Your task to perform on an android device: Add rayovac triple a to the cart on newegg.com, then select checkout. Image 0: 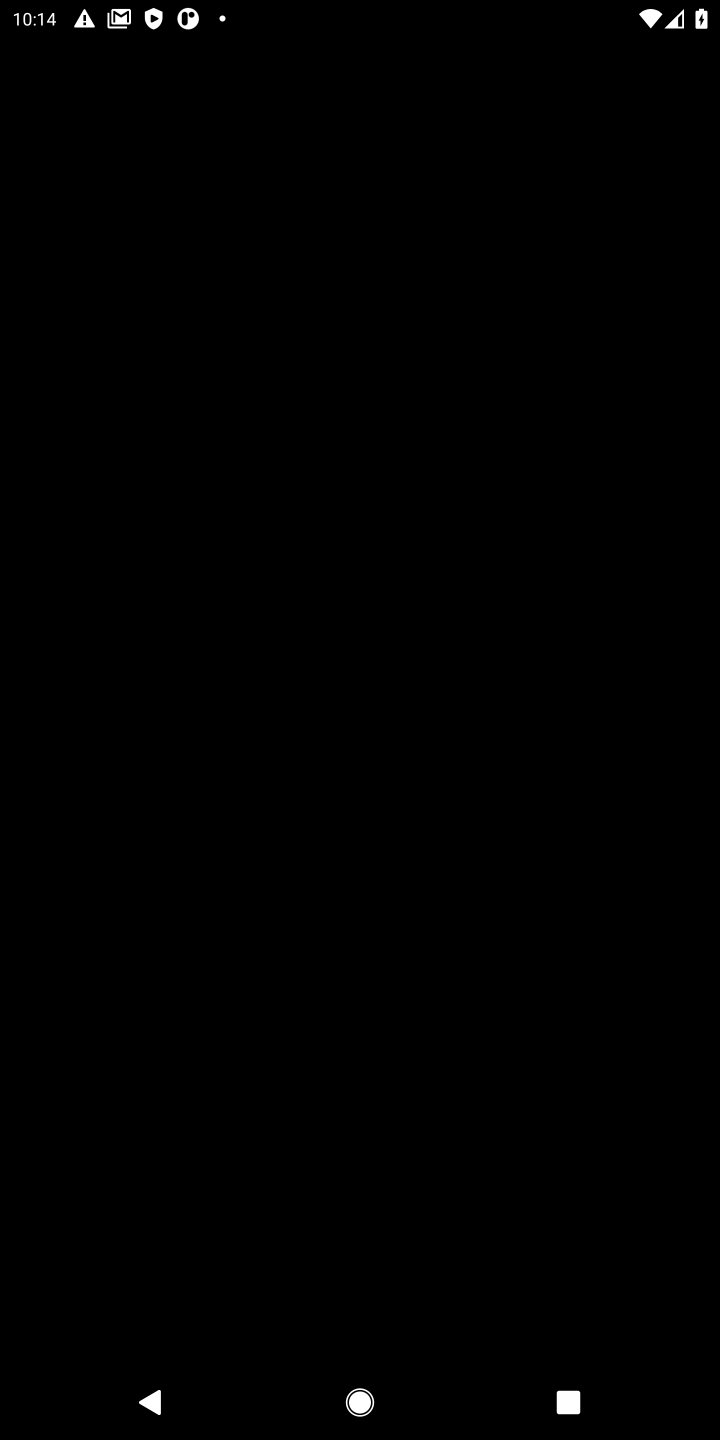
Step 0: press home button
Your task to perform on an android device: Add rayovac triple a to the cart on newegg.com, then select checkout. Image 1: 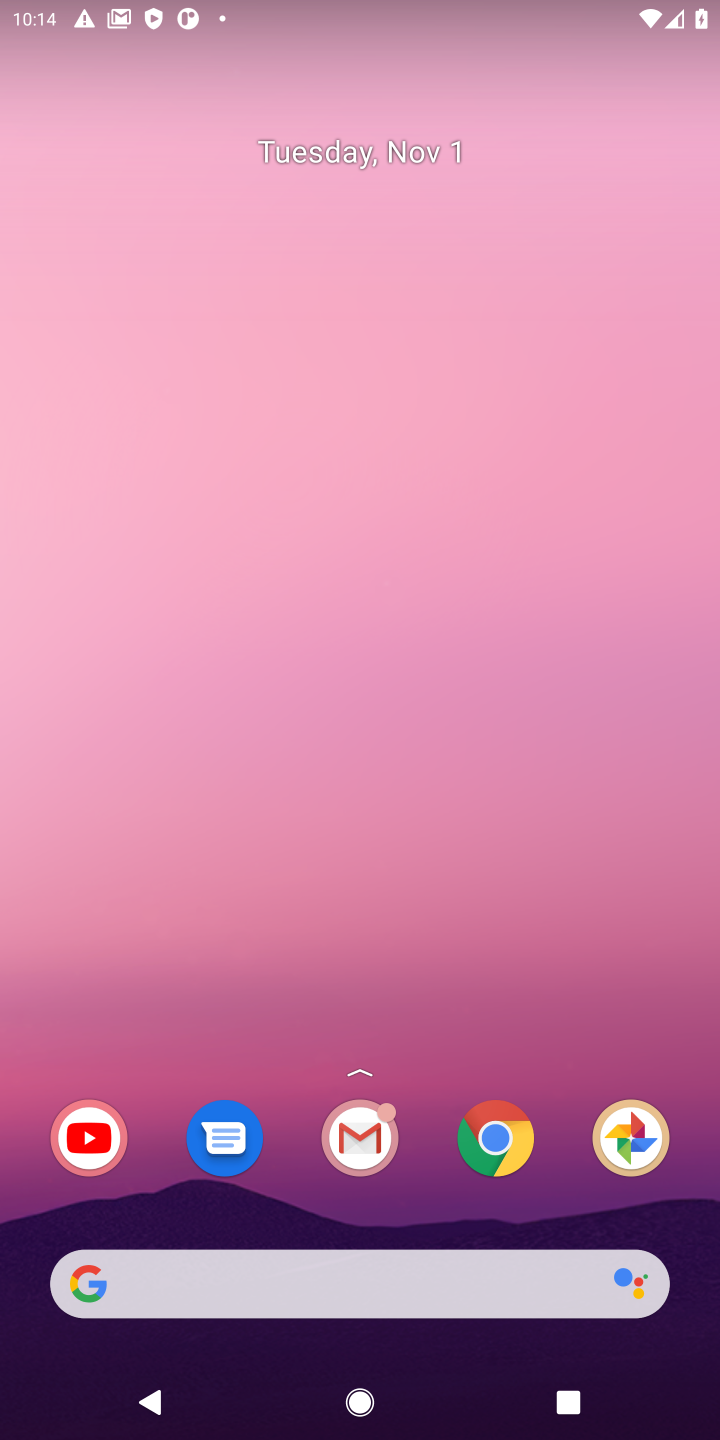
Step 1: click (512, 1135)
Your task to perform on an android device: Add rayovac triple a to the cart on newegg.com, then select checkout. Image 2: 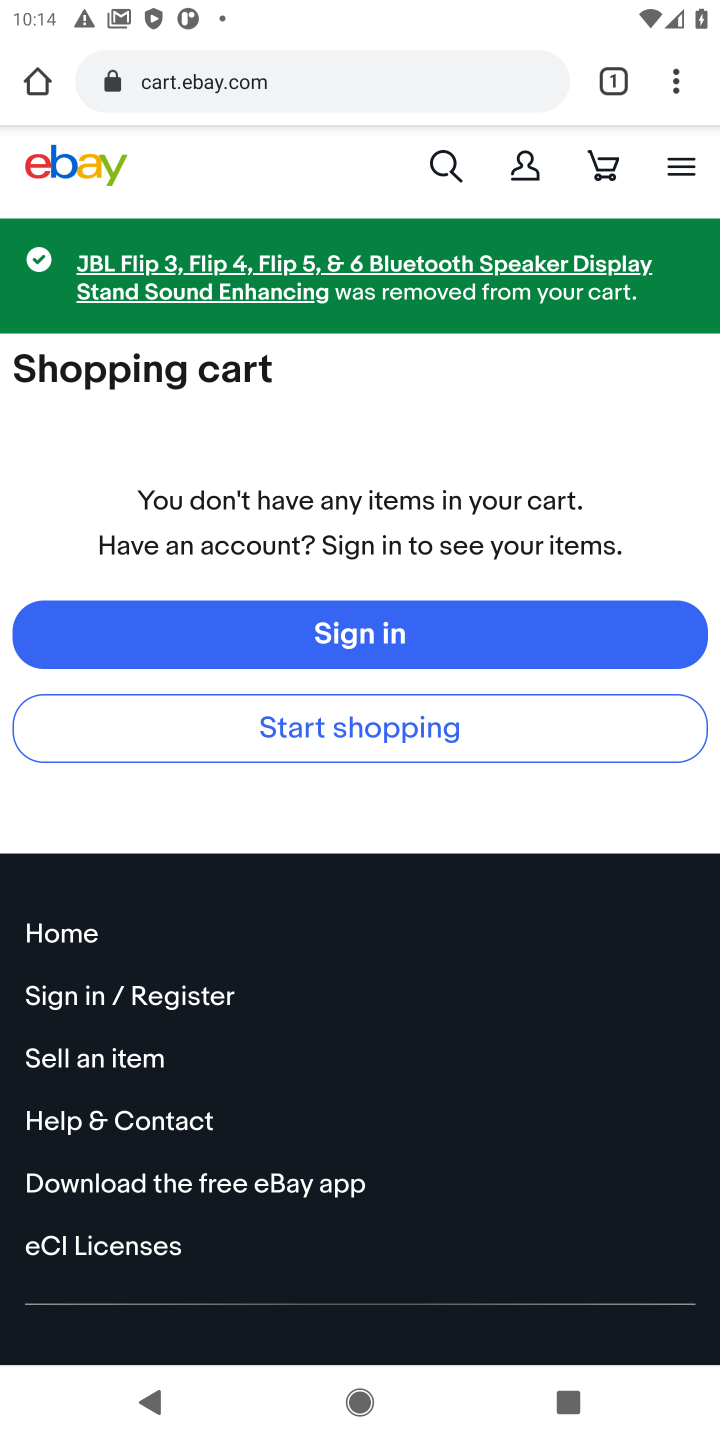
Step 2: click (202, 78)
Your task to perform on an android device: Add rayovac triple a to the cart on newegg.com, then select checkout. Image 3: 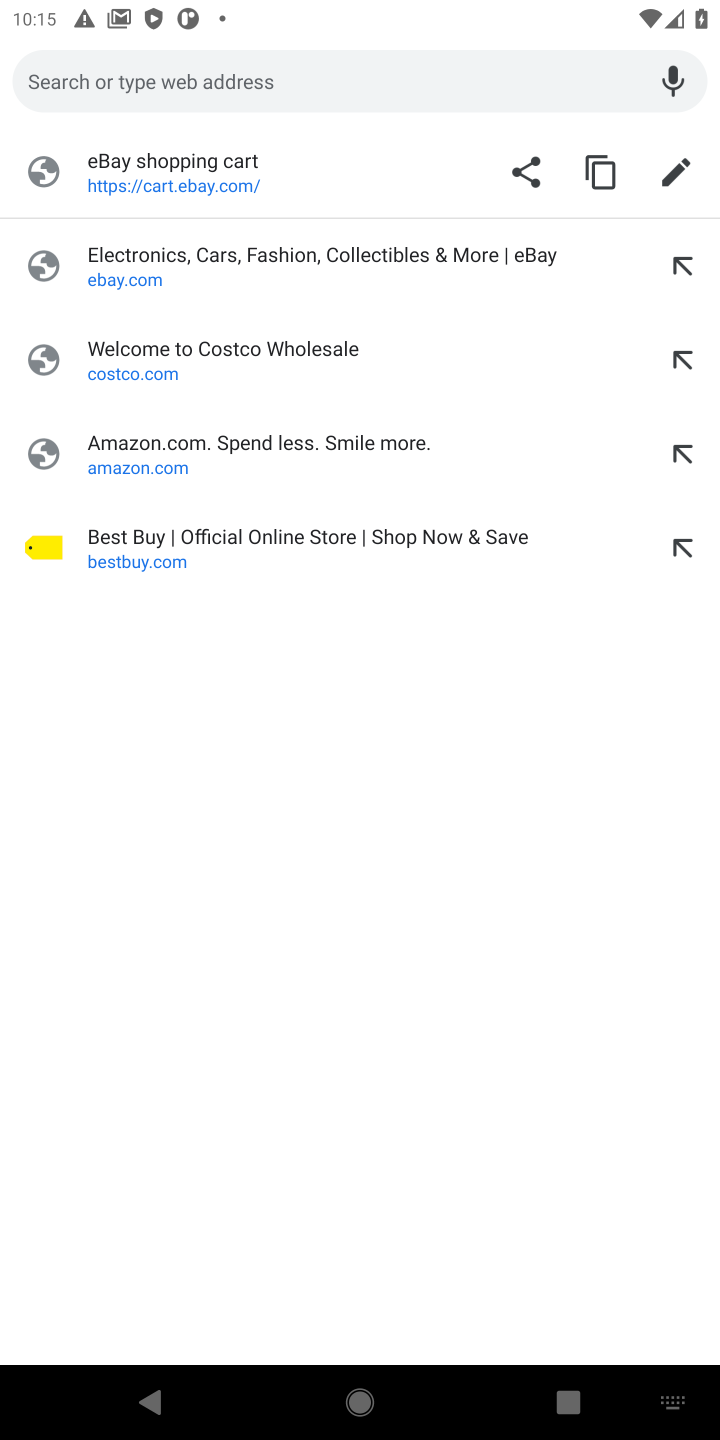
Step 3: type "newegg.com"
Your task to perform on an android device: Add rayovac triple a to the cart on newegg.com, then select checkout. Image 4: 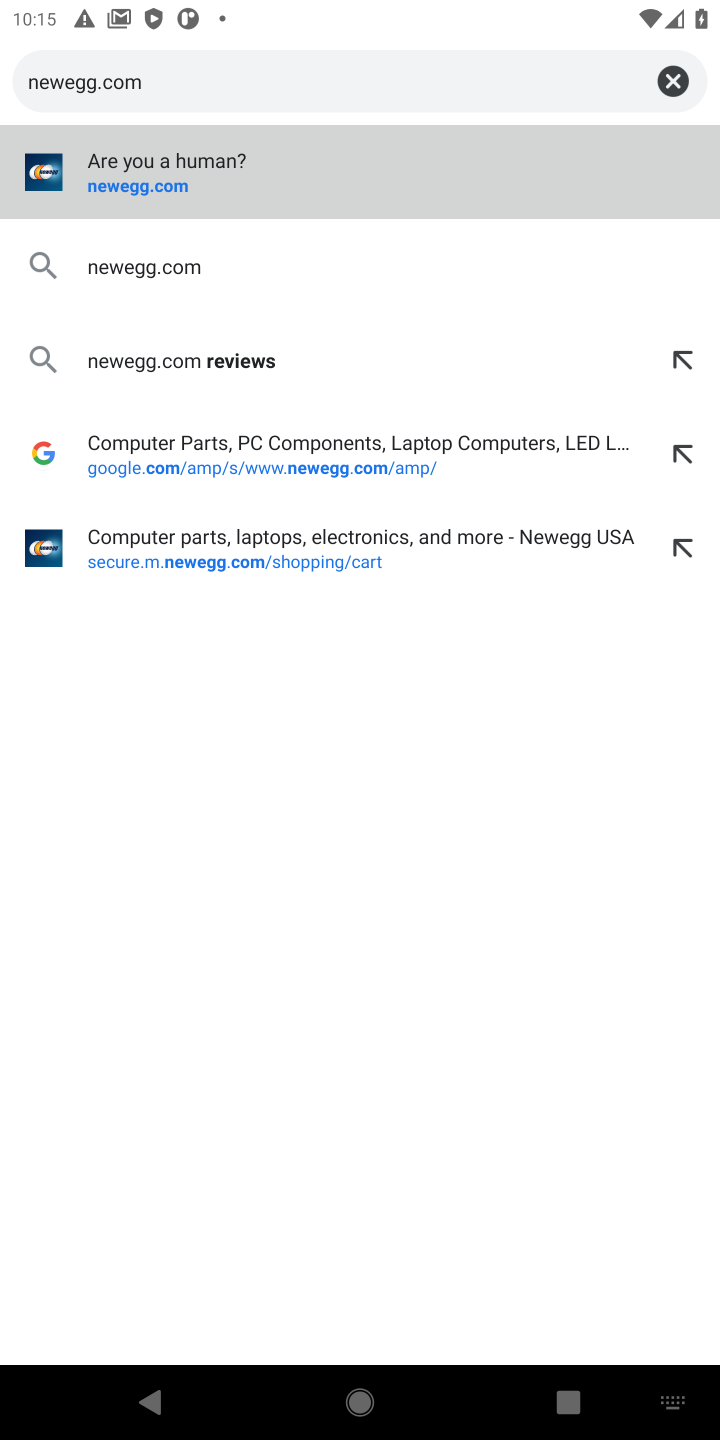
Step 4: click (129, 277)
Your task to perform on an android device: Add rayovac triple a to the cart on newegg.com, then select checkout. Image 5: 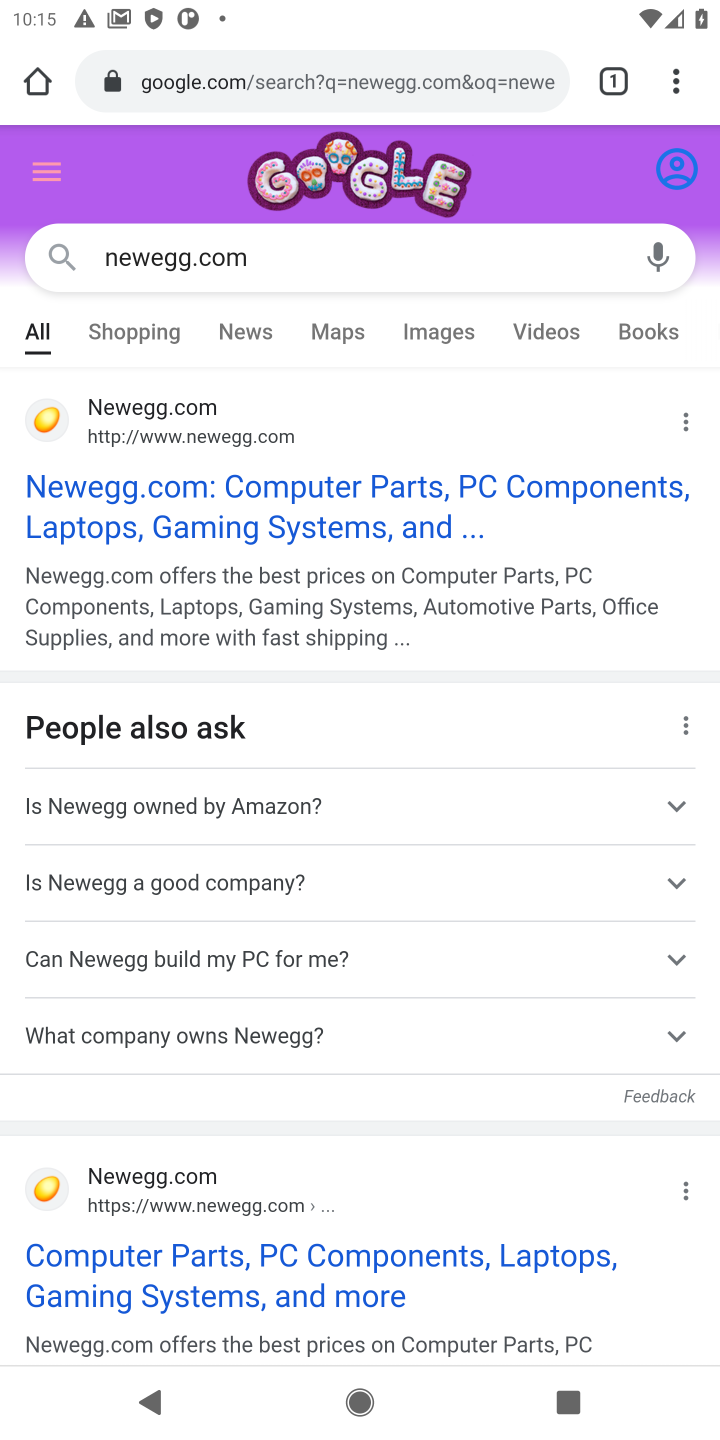
Step 5: click (174, 449)
Your task to perform on an android device: Add rayovac triple a to the cart on newegg.com, then select checkout. Image 6: 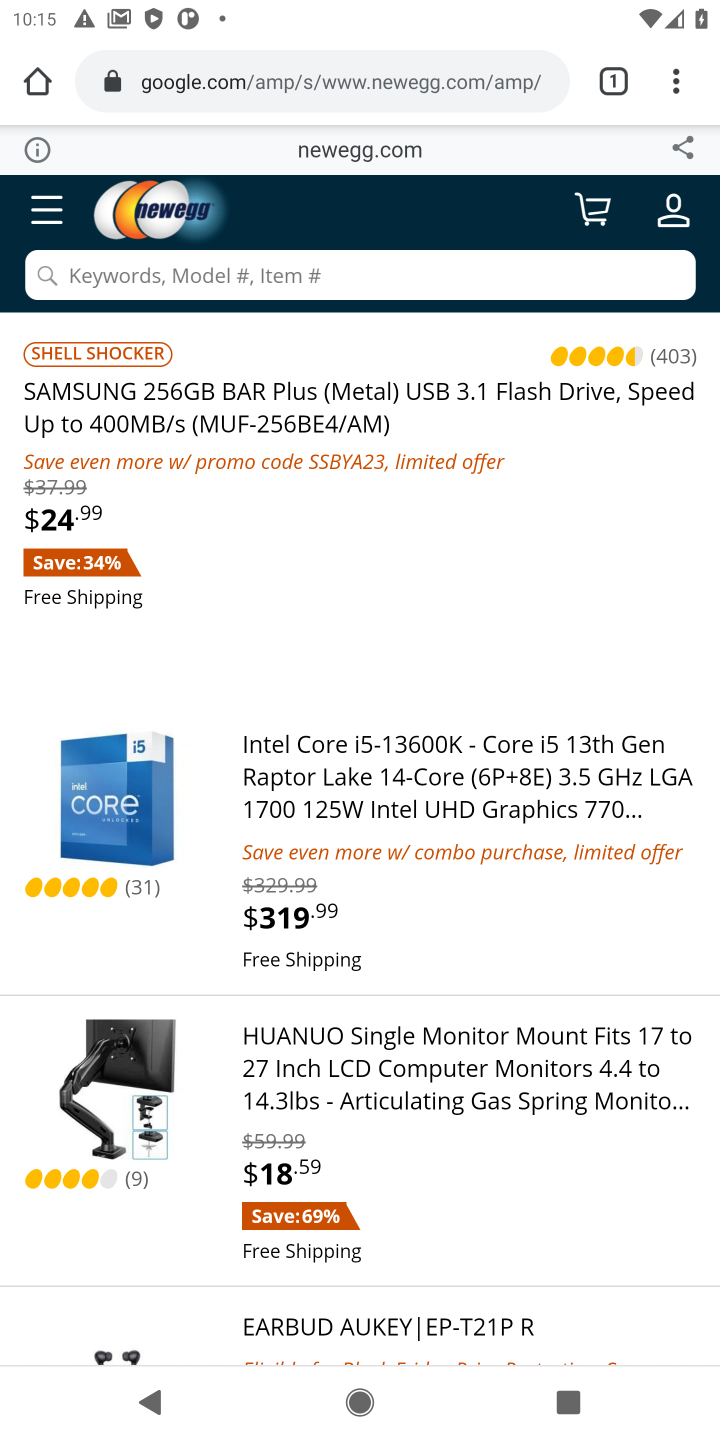
Step 6: click (238, 283)
Your task to perform on an android device: Add rayovac triple a to the cart on newegg.com, then select checkout. Image 7: 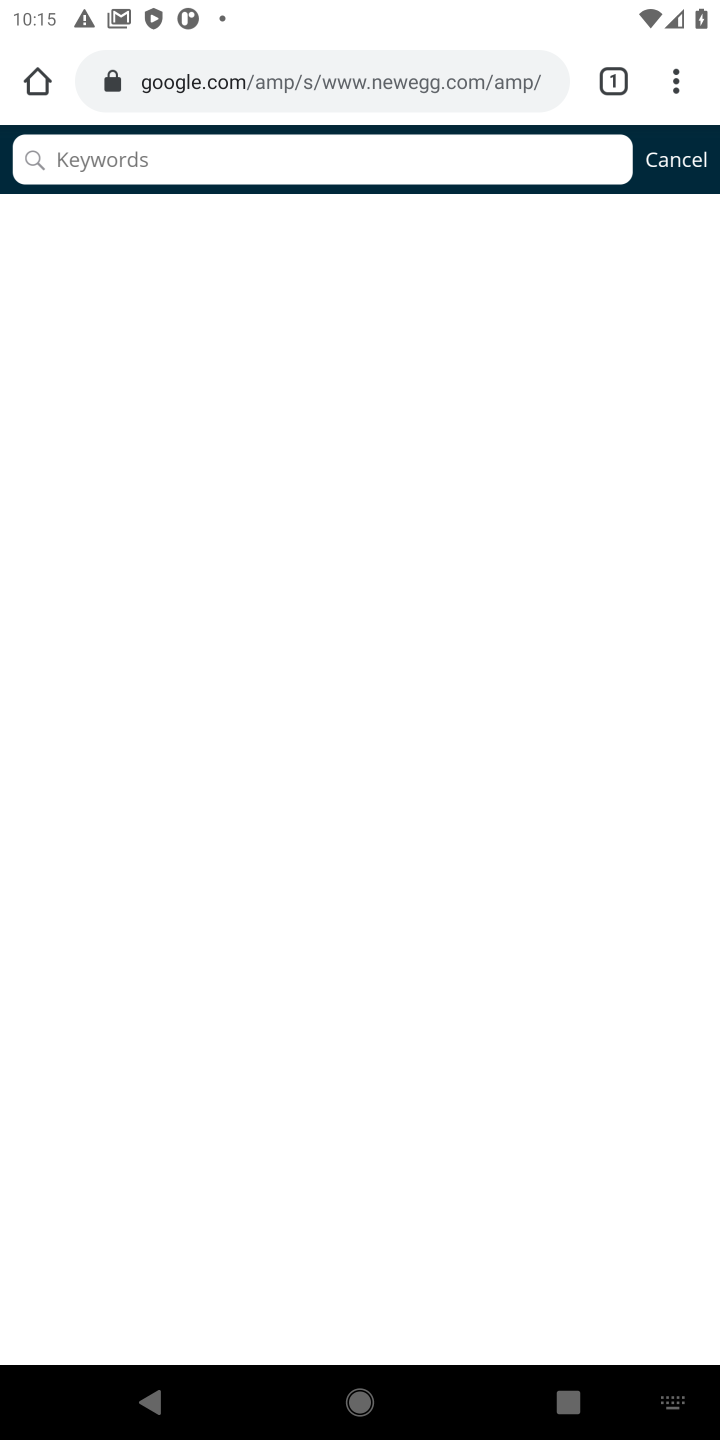
Step 7: type "rayovac triple a"
Your task to perform on an android device: Add rayovac triple a to the cart on newegg.com, then select checkout. Image 8: 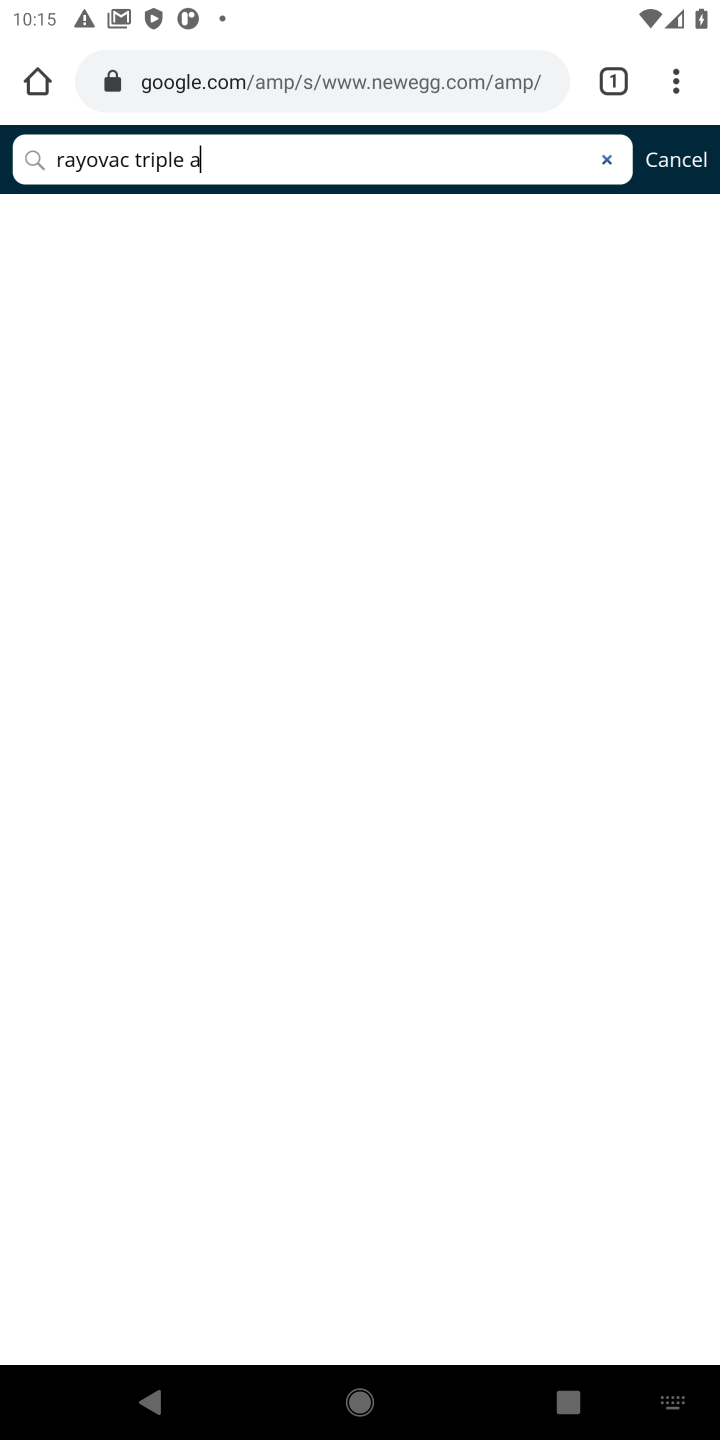
Step 8: click (34, 164)
Your task to perform on an android device: Add rayovac triple a to the cart on newegg.com, then select checkout. Image 9: 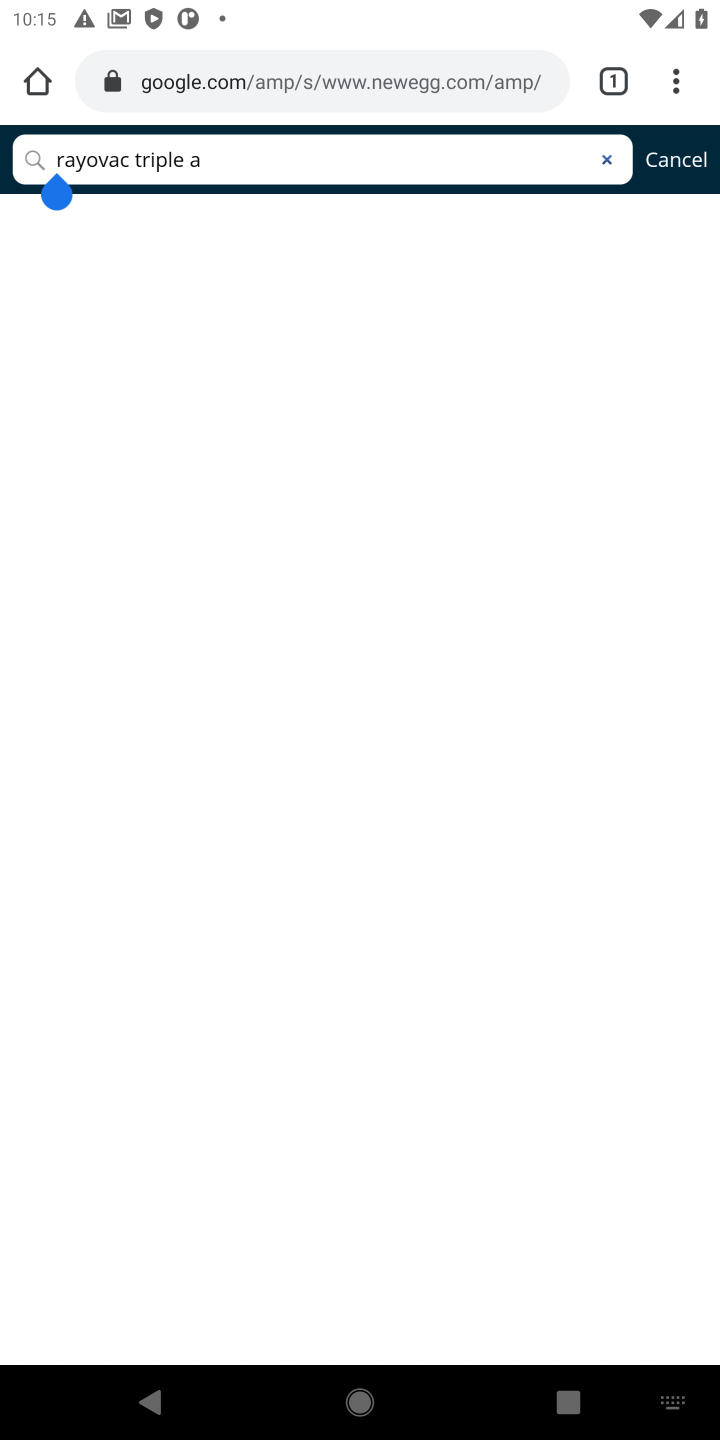
Step 9: task complete